Your task to perform on an android device: Go to accessibility settings Image 0: 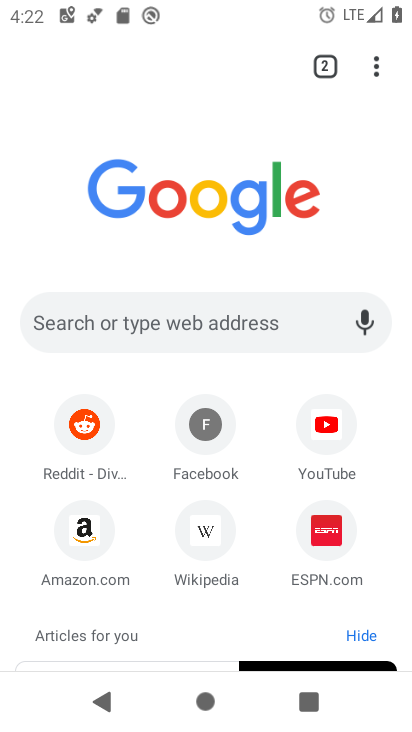
Step 0: press home button
Your task to perform on an android device: Go to accessibility settings Image 1: 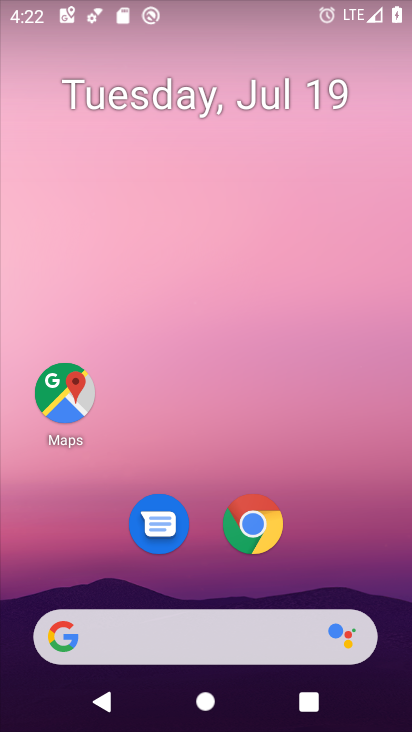
Step 1: drag from (311, 557) to (323, 9)
Your task to perform on an android device: Go to accessibility settings Image 2: 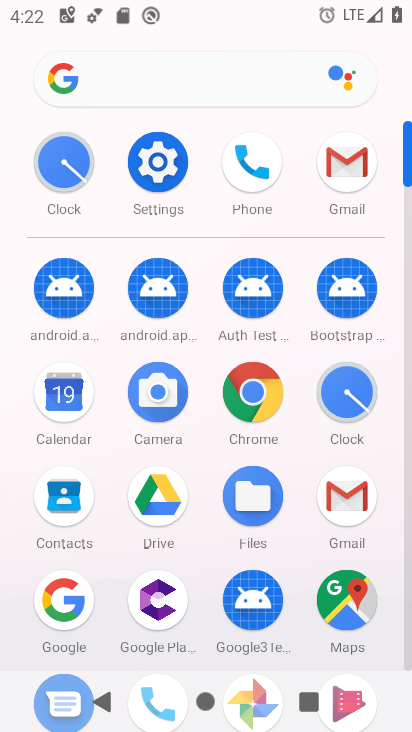
Step 2: click (160, 163)
Your task to perform on an android device: Go to accessibility settings Image 3: 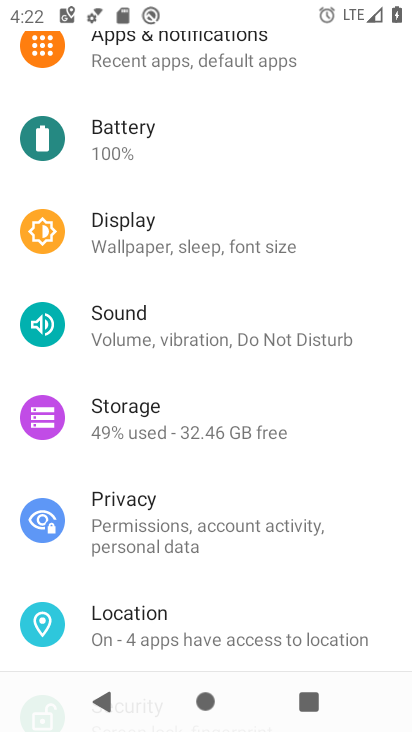
Step 3: drag from (225, 569) to (252, 1)
Your task to perform on an android device: Go to accessibility settings Image 4: 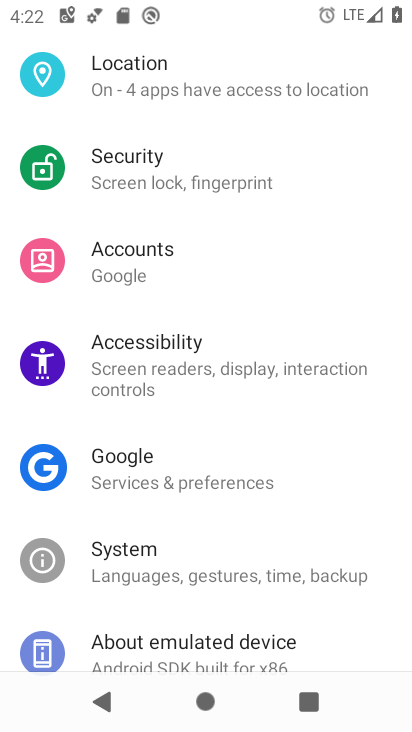
Step 4: click (211, 363)
Your task to perform on an android device: Go to accessibility settings Image 5: 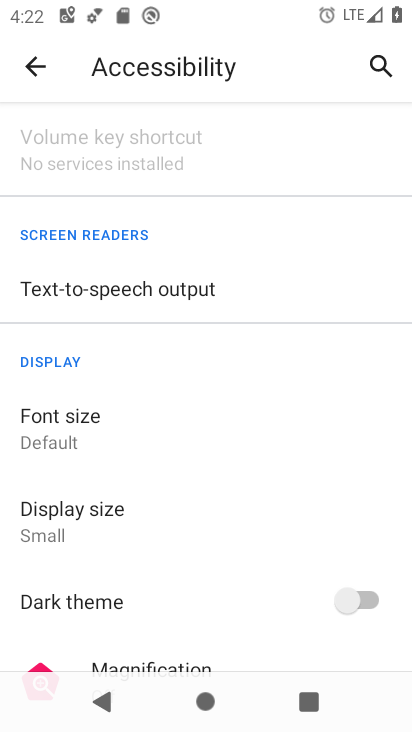
Step 5: task complete